Your task to perform on an android device: Toggle the flashlight Image 0: 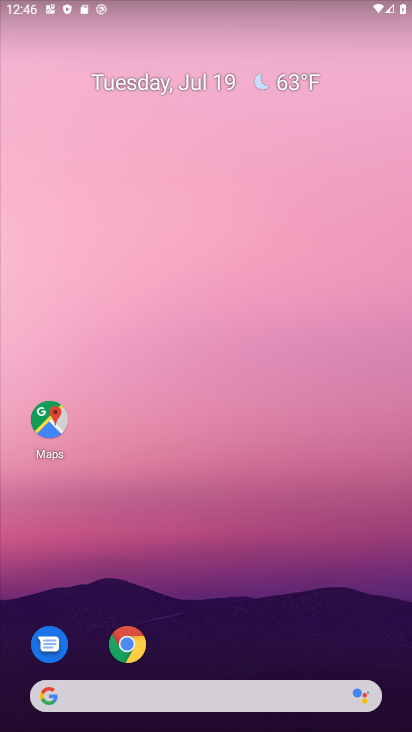
Step 0: drag from (201, 728) to (168, 49)
Your task to perform on an android device: Toggle the flashlight Image 1: 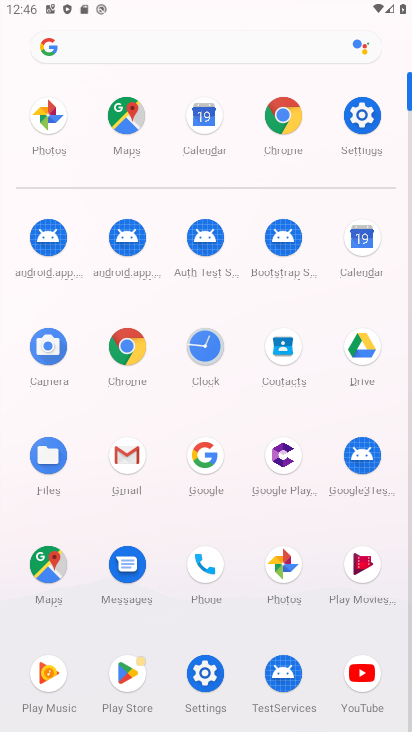
Step 1: click (369, 112)
Your task to perform on an android device: Toggle the flashlight Image 2: 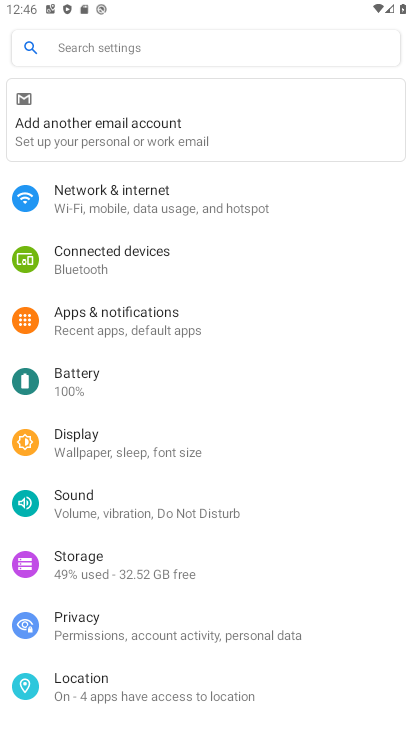
Step 2: task complete